Your task to perform on an android device: What's the weather? Image 0: 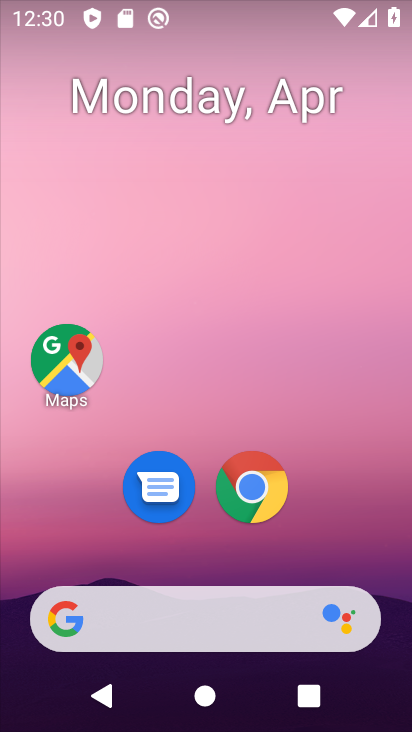
Step 0: click (212, 625)
Your task to perform on an android device: What's the weather? Image 1: 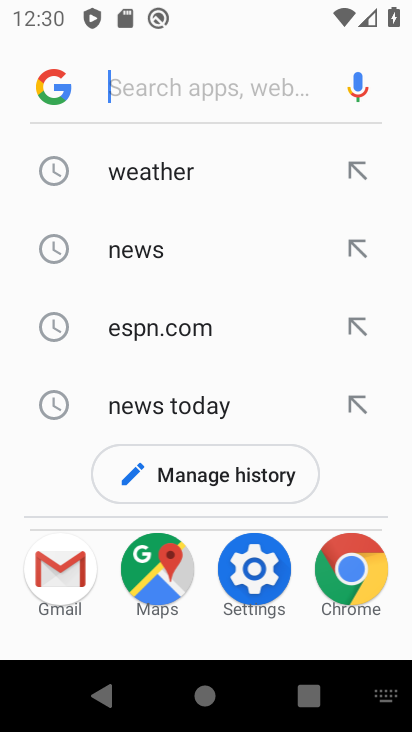
Step 1: click (190, 191)
Your task to perform on an android device: What's the weather? Image 2: 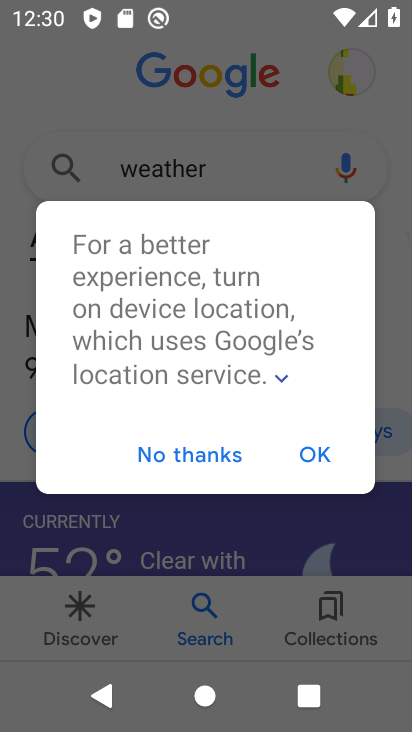
Step 2: click (203, 463)
Your task to perform on an android device: What's the weather? Image 3: 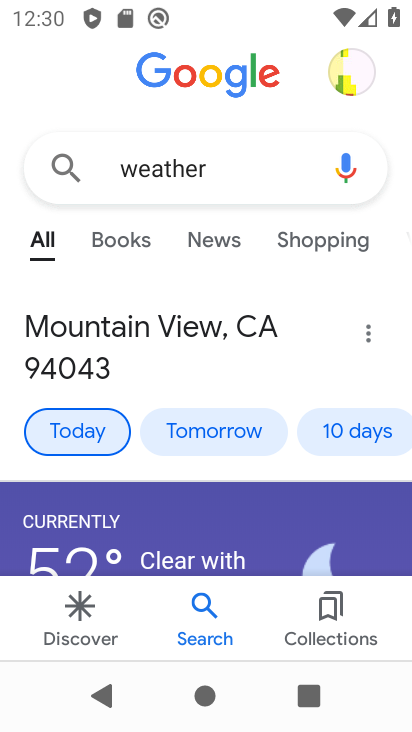
Step 3: task complete